Your task to perform on an android device: change alarm snooze length Image 0: 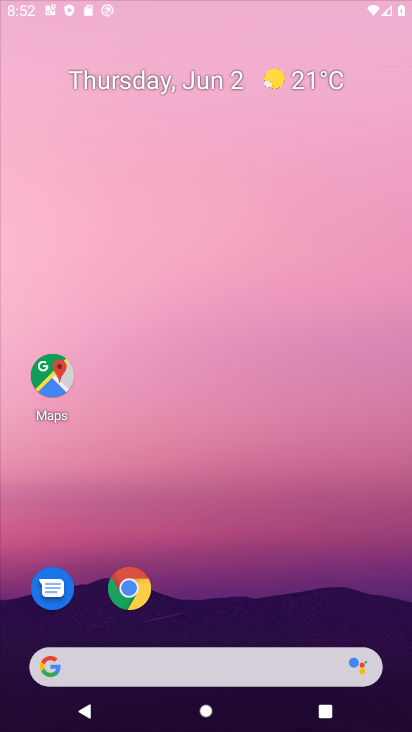
Step 0: click (153, 160)
Your task to perform on an android device: change alarm snooze length Image 1: 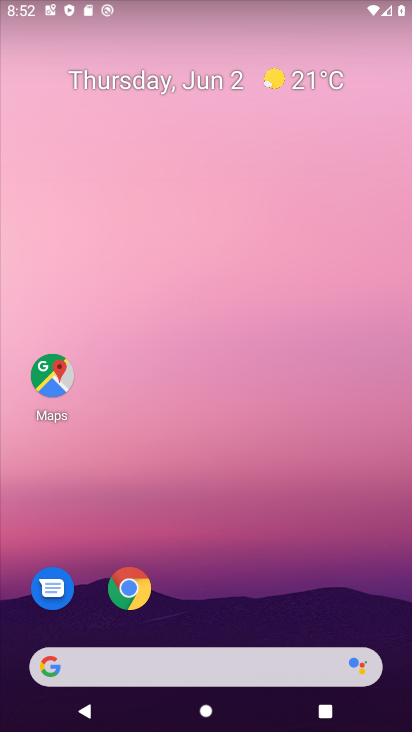
Step 1: drag from (196, 657) to (59, 14)
Your task to perform on an android device: change alarm snooze length Image 2: 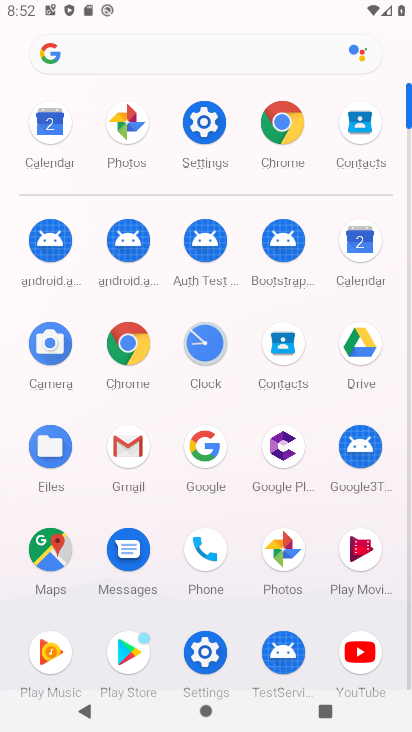
Step 2: click (209, 346)
Your task to perform on an android device: change alarm snooze length Image 3: 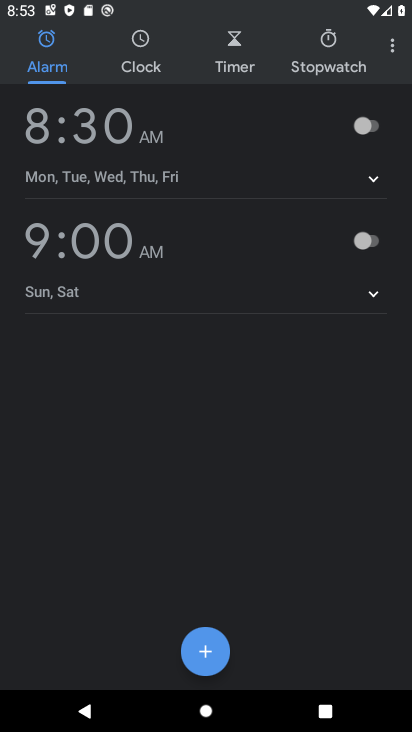
Step 3: click (390, 49)
Your task to perform on an android device: change alarm snooze length Image 4: 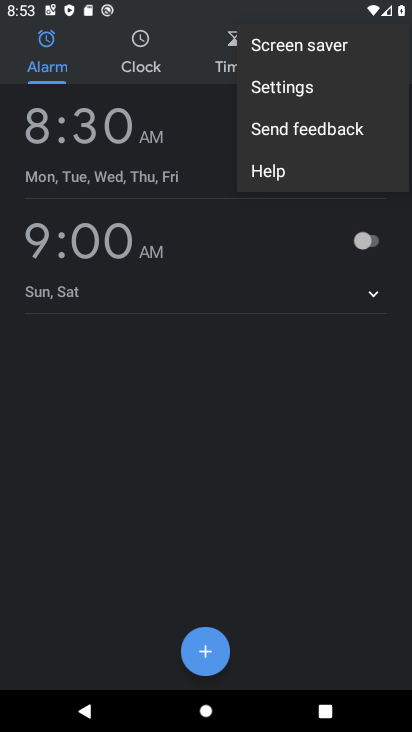
Step 4: click (301, 97)
Your task to perform on an android device: change alarm snooze length Image 5: 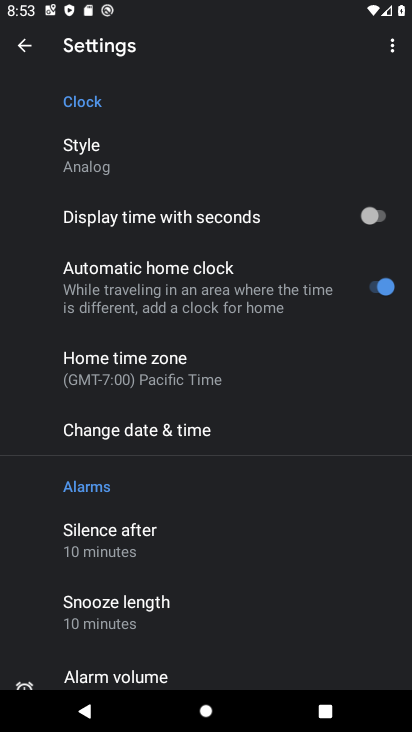
Step 5: click (106, 602)
Your task to perform on an android device: change alarm snooze length Image 6: 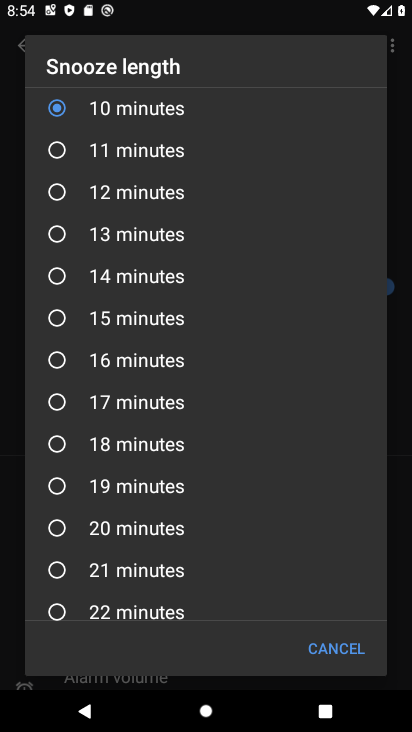
Step 6: click (160, 582)
Your task to perform on an android device: change alarm snooze length Image 7: 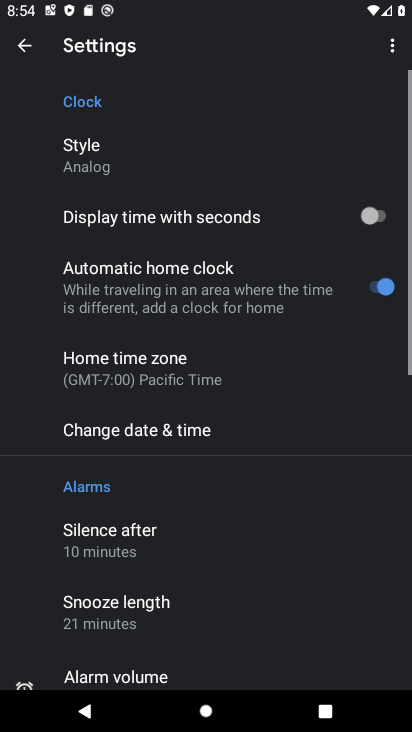
Step 7: task complete